Your task to perform on an android device: Open privacy settings Image 0: 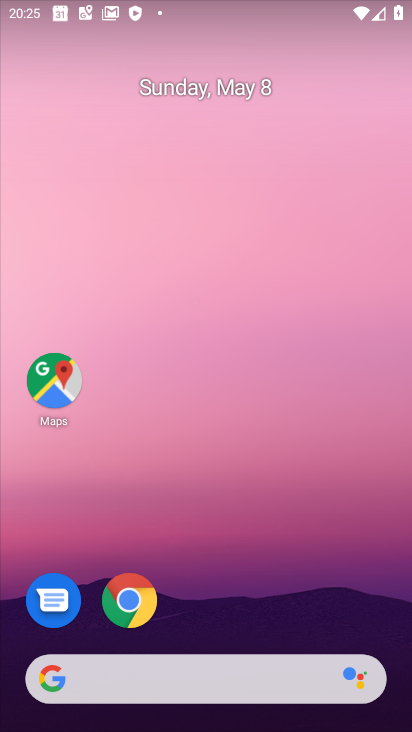
Step 0: drag from (275, 723) to (187, 254)
Your task to perform on an android device: Open privacy settings Image 1: 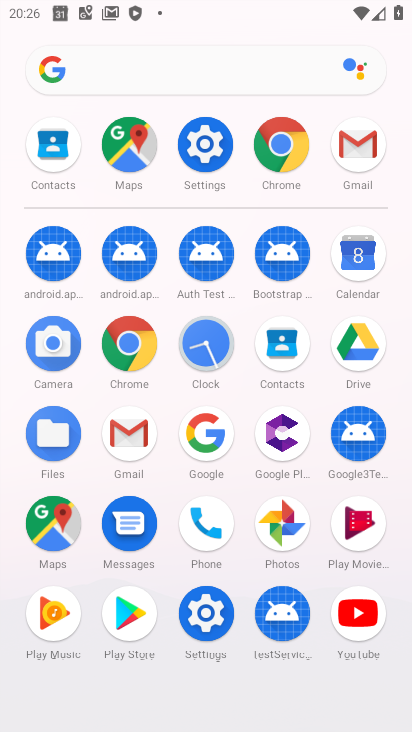
Step 1: click (210, 599)
Your task to perform on an android device: Open privacy settings Image 2: 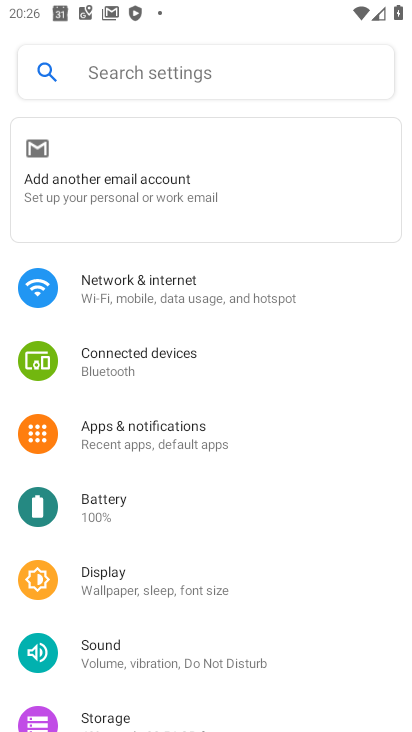
Step 2: drag from (262, 551) to (238, 366)
Your task to perform on an android device: Open privacy settings Image 3: 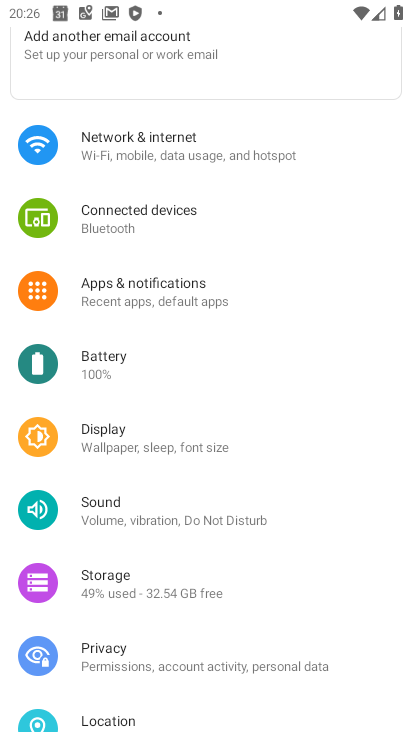
Step 3: click (153, 651)
Your task to perform on an android device: Open privacy settings Image 4: 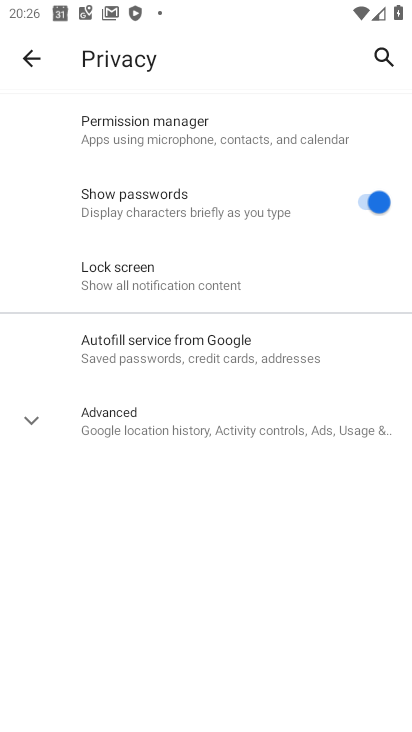
Step 4: task complete